Your task to perform on an android device: open a new tab in the chrome app Image 0: 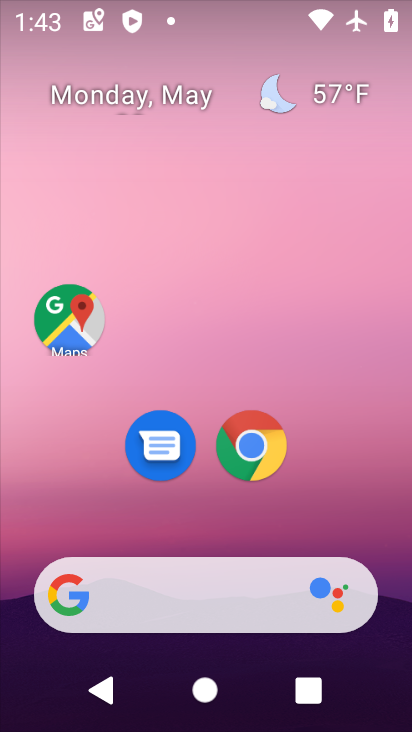
Step 0: click (251, 417)
Your task to perform on an android device: open a new tab in the chrome app Image 1: 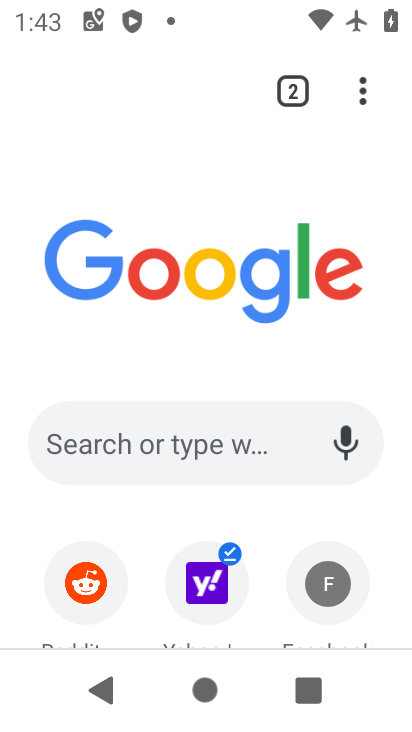
Step 1: click (286, 93)
Your task to perform on an android device: open a new tab in the chrome app Image 2: 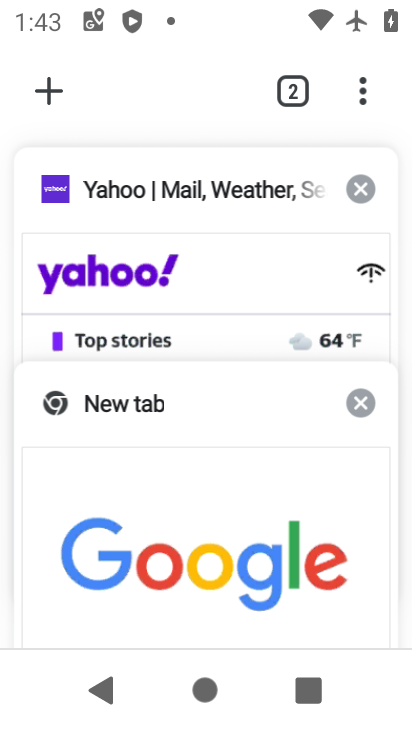
Step 2: click (41, 79)
Your task to perform on an android device: open a new tab in the chrome app Image 3: 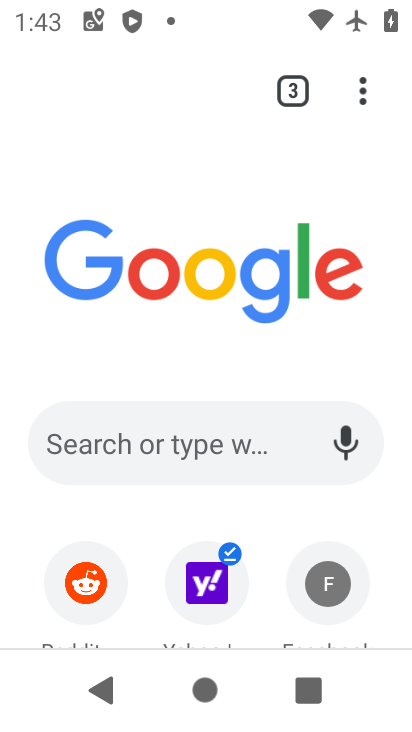
Step 3: task complete